Your task to perform on an android device: Open the web browser Image 0: 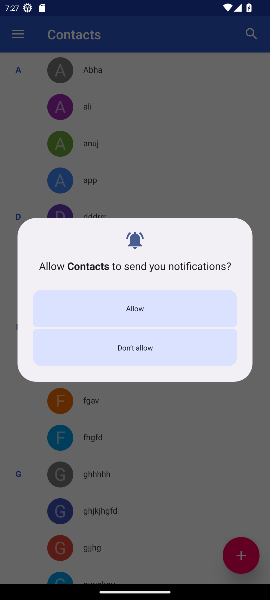
Step 0: press home button
Your task to perform on an android device: Open the web browser Image 1: 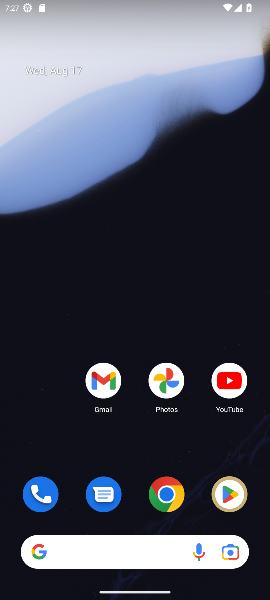
Step 1: drag from (140, 511) to (80, 4)
Your task to perform on an android device: Open the web browser Image 2: 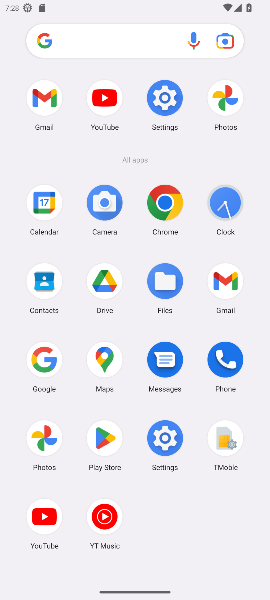
Step 2: click (173, 206)
Your task to perform on an android device: Open the web browser Image 3: 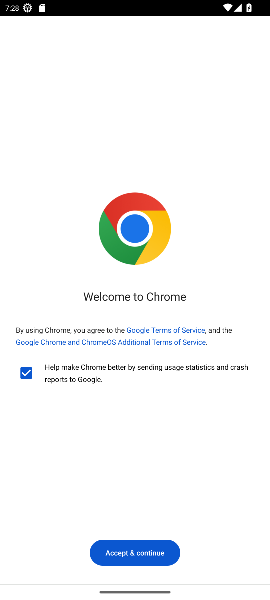
Step 3: click (142, 558)
Your task to perform on an android device: Open the web browser Image 4: 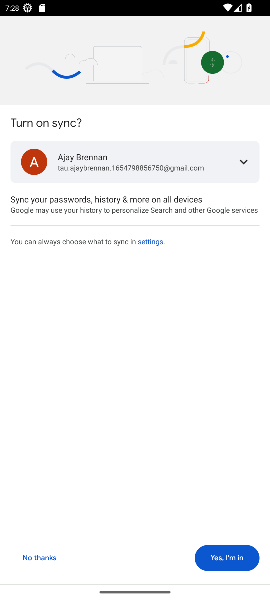
Step 4: task complete